Your task to perform on an android device: Go to privacy settings Image 0: 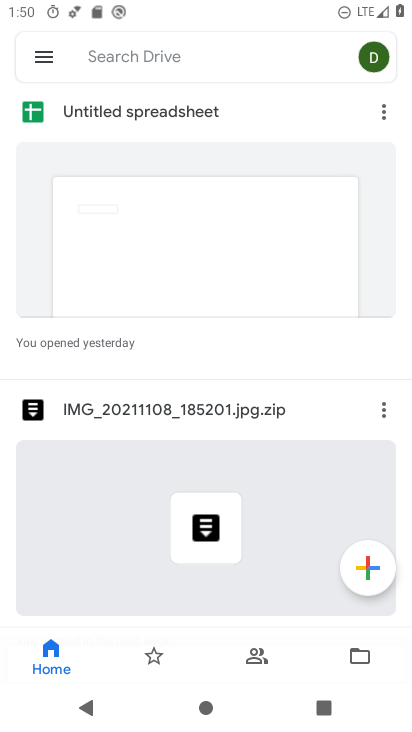
Step 0: press home button
Your task to perform on an android device: Go to privacy settings Image 1: 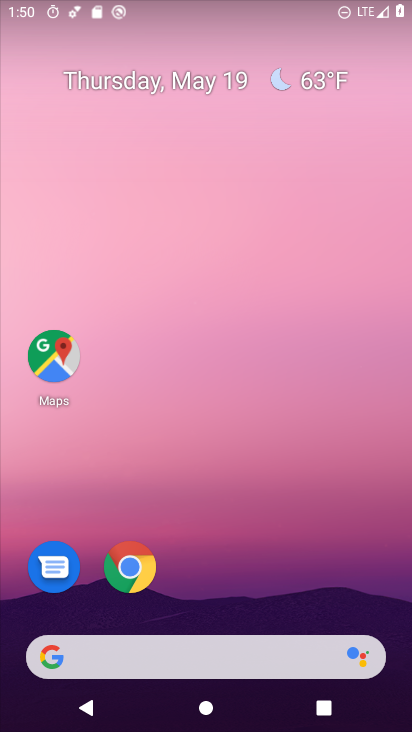
Step 1: drag from (177, 657) to (275, 145)
Your task to perform on an android device: Go to privacy settings Image 2: 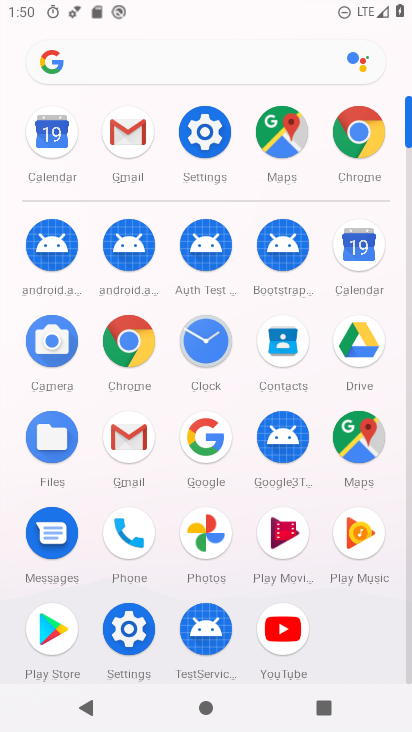
Step 2: click (206, 135)
Your task to perform on an android device: Go to privacy settings Image 3: 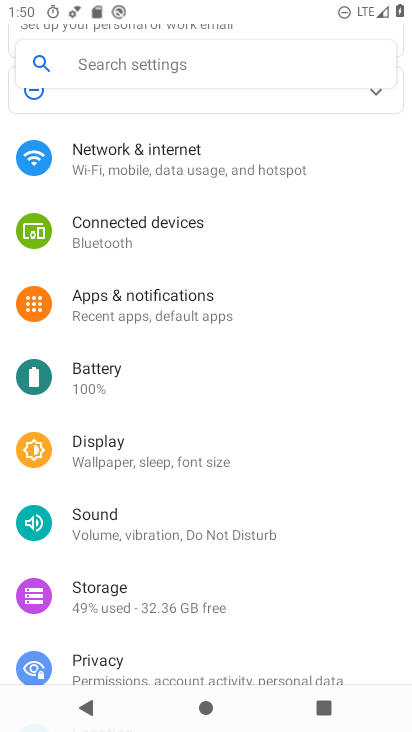
Step 3: drag from (277, 522) to (347, 224)
Your task to perform on an android device: Go to privacy settings Image 4: 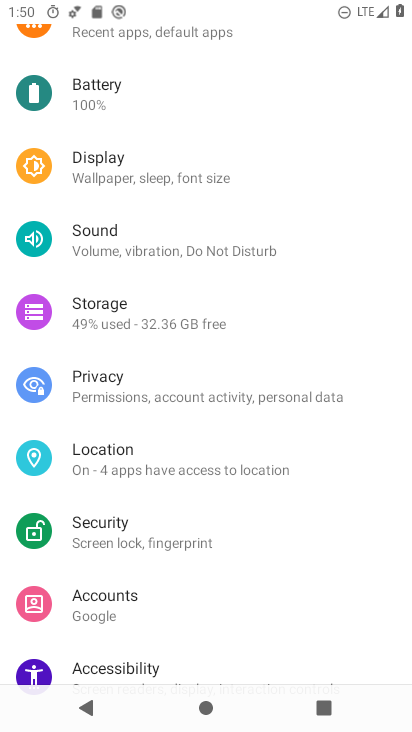
Step 4: click (143, 399)
Your task to perform on an android device: Go to privacy settings Image 5: 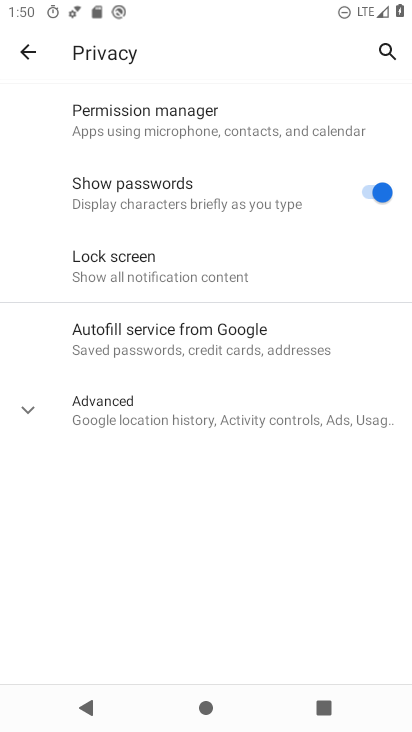
Step 5: task complete